Your task to perform on an android device: turn on sleep mode Image 0: 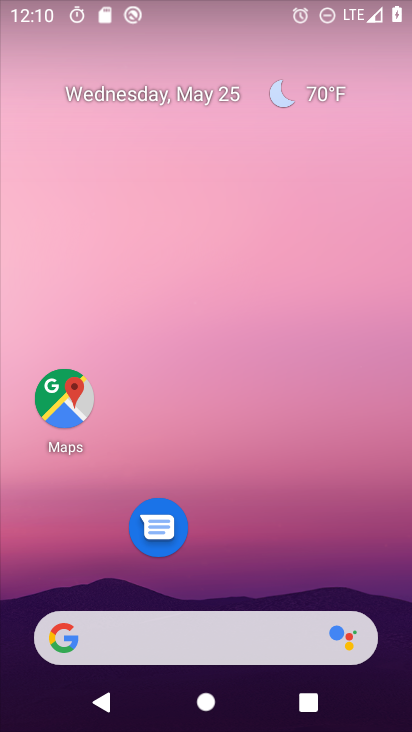
Step 0: drag from (242, 559) to (248, 68)
Your task to perform on an android device: turn on sleep mode Image 1: 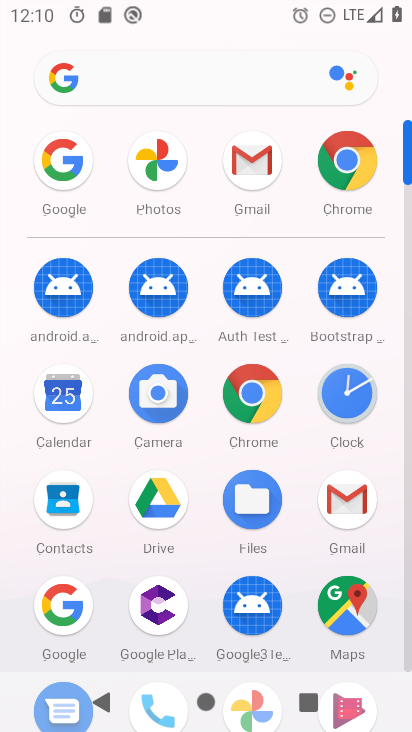
Step 1: drag from (219, 504) to (208, 83)
Your task to perform on an android device: turn on sleep mode Image 2: 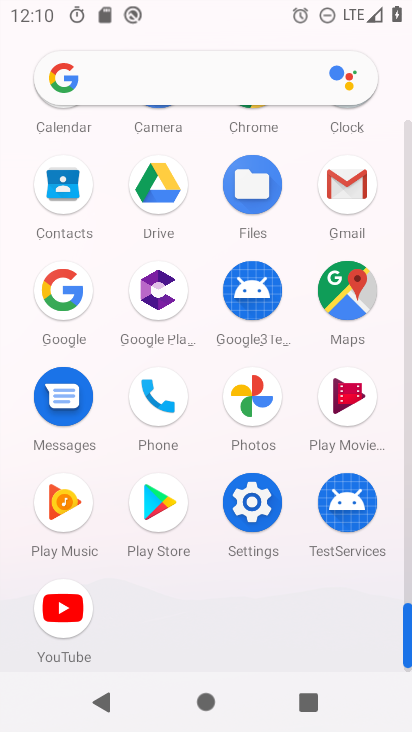
Step 2: click (246, 503)
Your task to perform on an android device: turn on sleep mode Image 3: 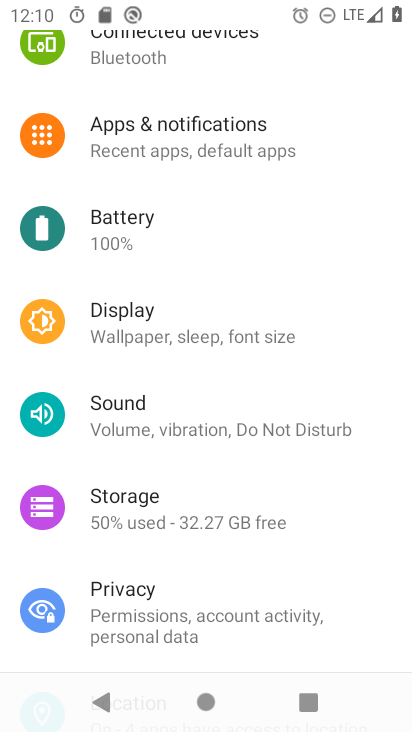
Step 3: click (183, 336)
Your task to perform on an android device: turn on sleep mode Image 4: 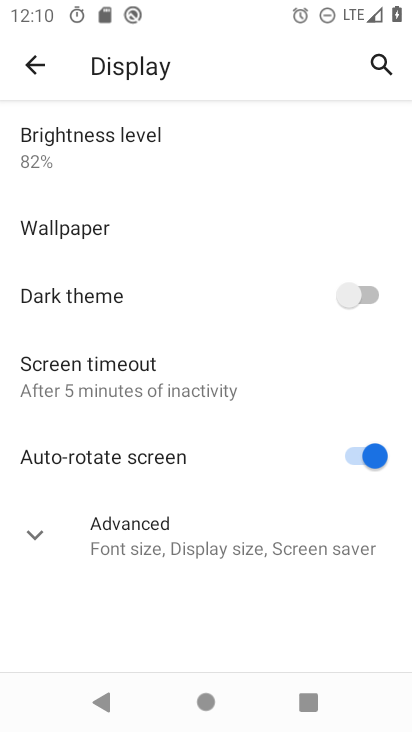
Step 4: click (146, 385)
Your task to perform on an android device: turn on sleep mode Image 5: 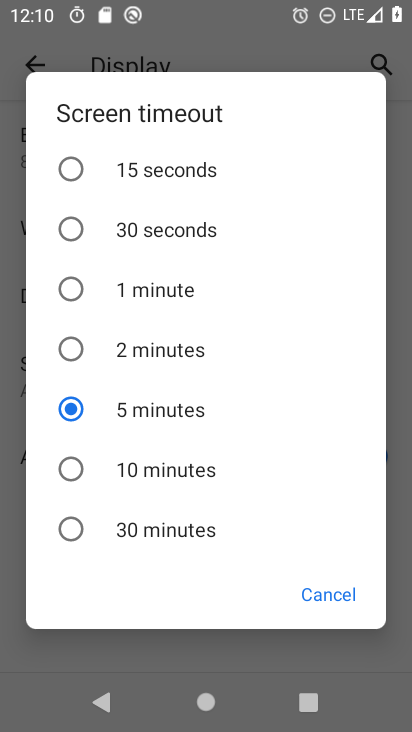
Step 5: task complete